Your task to perform on an android device: check the backup settings in the google photos Image 0: 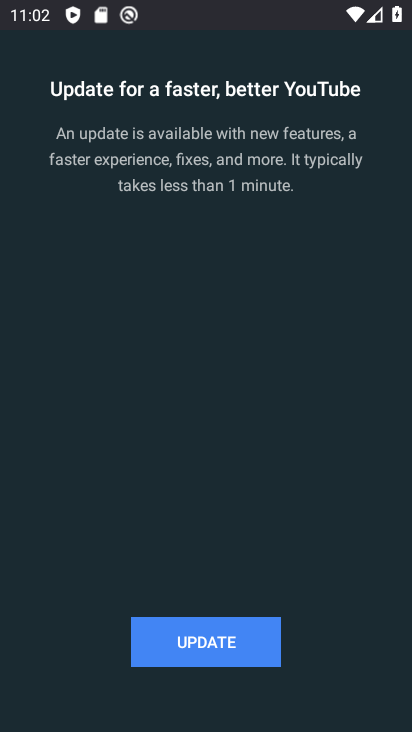
Step 0: press home button
Your task to perform on an android device: check the backup settings in the google photos Image 1: 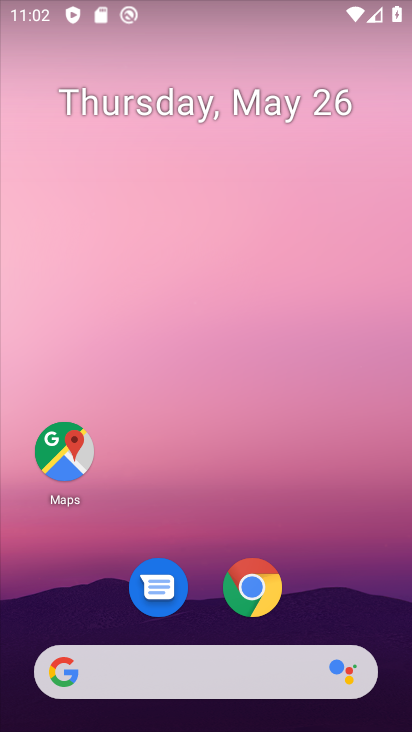
Step 1: drag from (258, 708) to (296, 136)
Your task to perform on an android device: check the backup settings in the google photos Image 2: 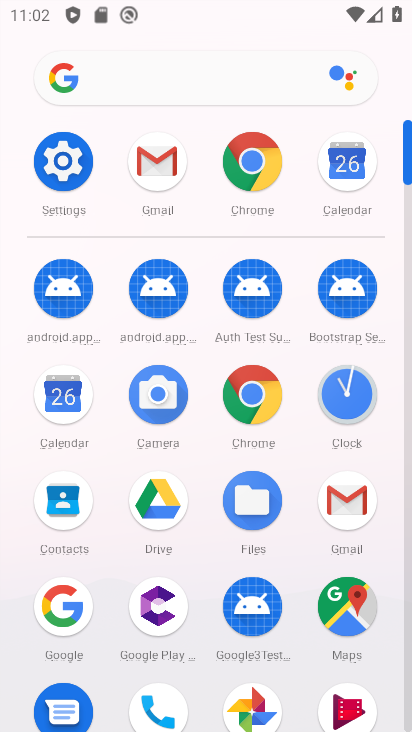
Step 2: click (243, 696)
Your task to perform on an android device: check the backup settings in the google photos Image 3: 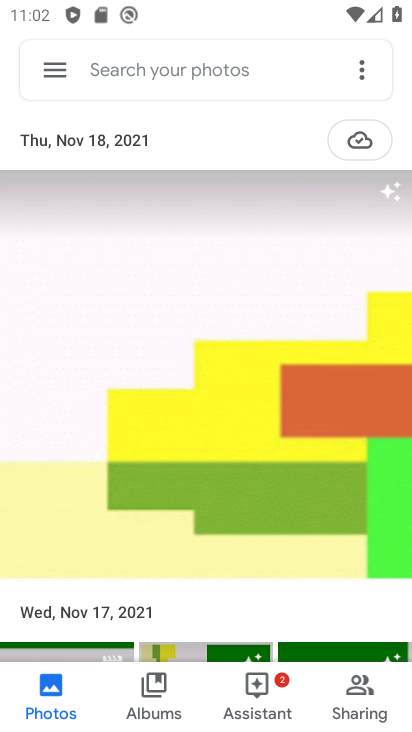
Step 3: click (51, 72)
Your task to perform on an android device: check the backup settings in the google photos Image 4: 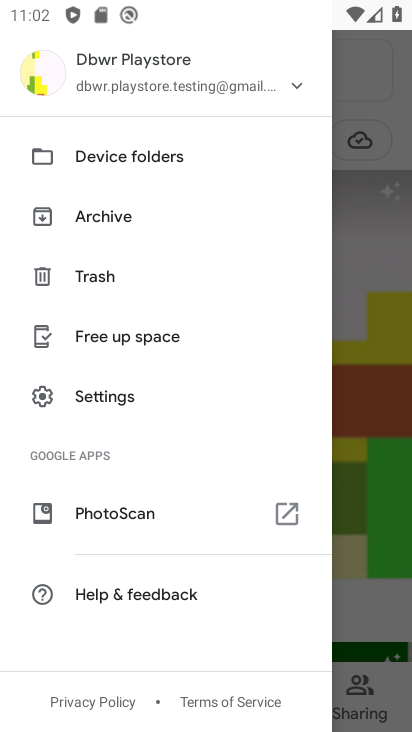
Step 4: click (129, 396)
Your task to perform on an android device: check the backup settings in the google photos Image 5: 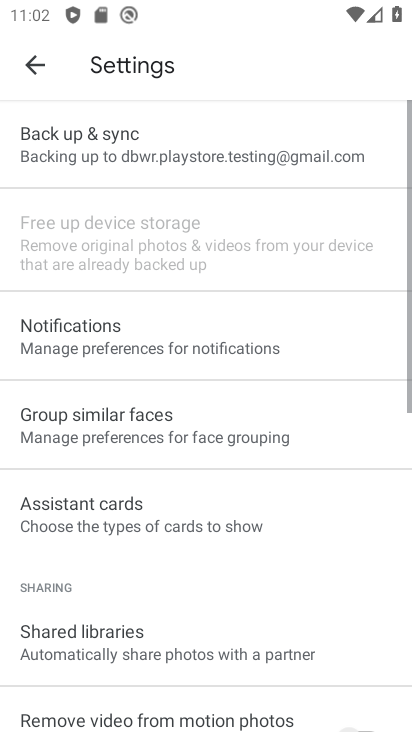
Step 5: click (129, 148)
Your task to perform on an android device: check the backup settings in the google photos Image 6: 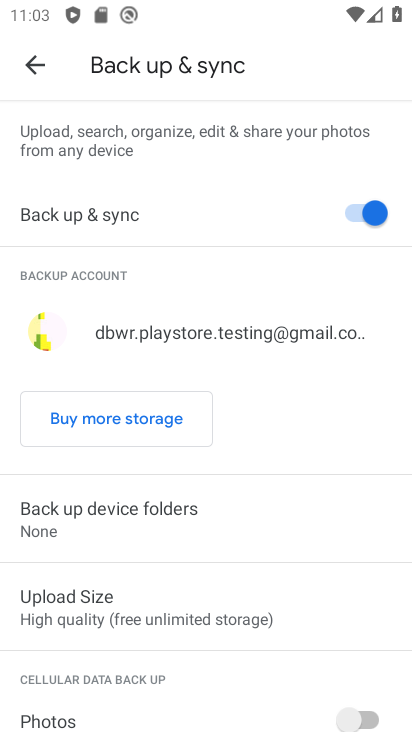
Step 6: task complete